Your task to perform on an android device: Search for seafood restaurants on Google Maps Image 0: 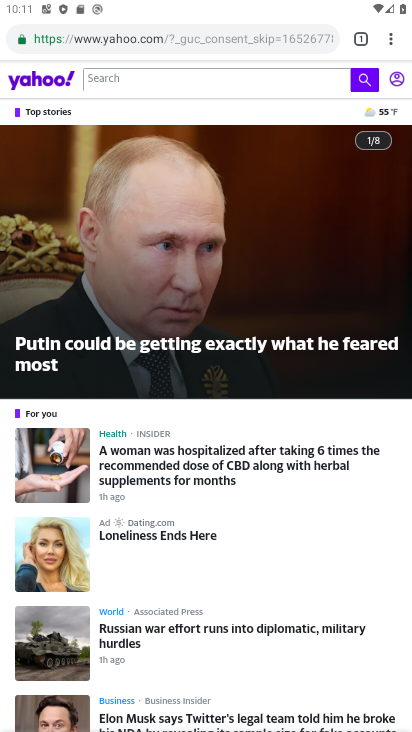
Step 0: press home button
Your task to perform on an android device: Search for seafood restaurants on Google Maps Image 1: 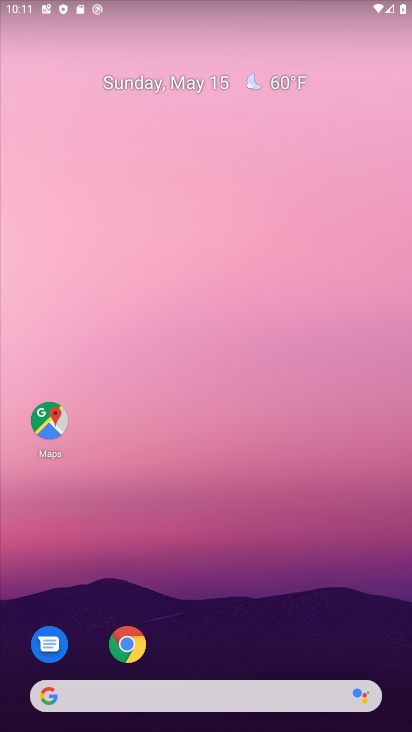
Step 1: click (51, 411)
Your task to perform on an android device: Search for seafood restaurants on Google Maps Image 2: 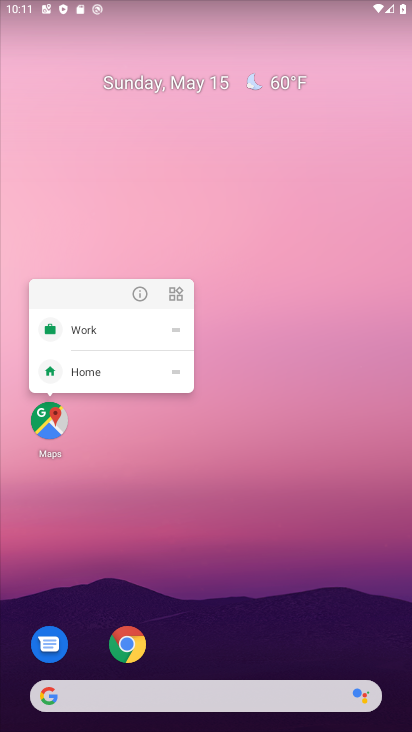
Step 2: click (51, 410)
Your task to perform on an android device: Search for seafood restaurants on Google Maps Image 3: 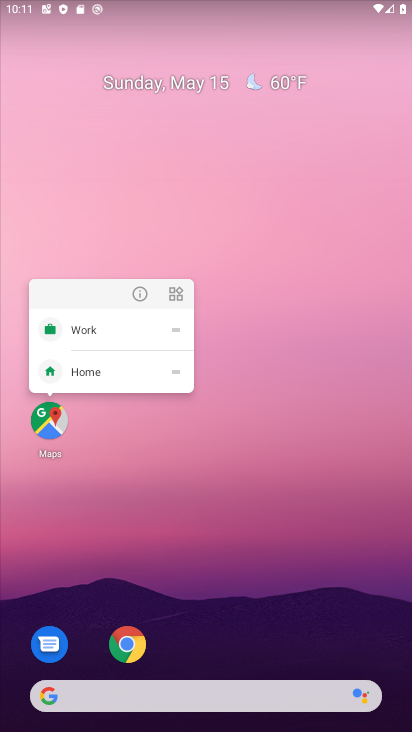
Step 3: click (51, 411)
Your task to perform on an android device: Search for seafood restaurants on Google Maps Image 4: 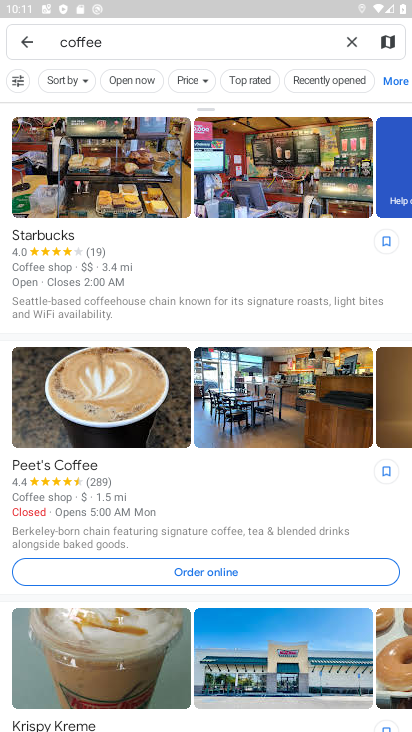
Step 4: click (140, 42)
Your task to perform on an android device: Search for seafood restaurants on Google Maps Image 5: 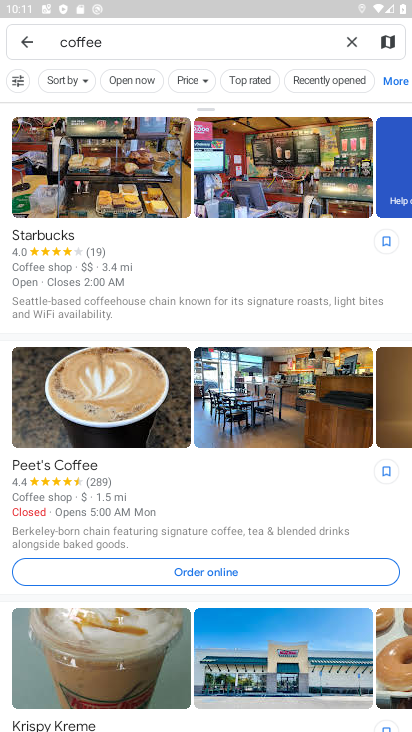
Step 5: click (349, 39)
Your task to perform on an android device: Search for seafood restaurants on Google Maps Image 6: 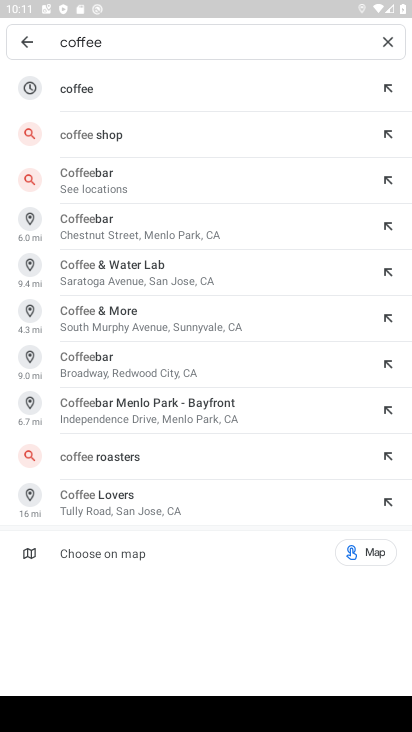
Step 6: click (121, 41)
Your task to perform on an android device: Search for seafood restaurants on Google Maps Image 7: 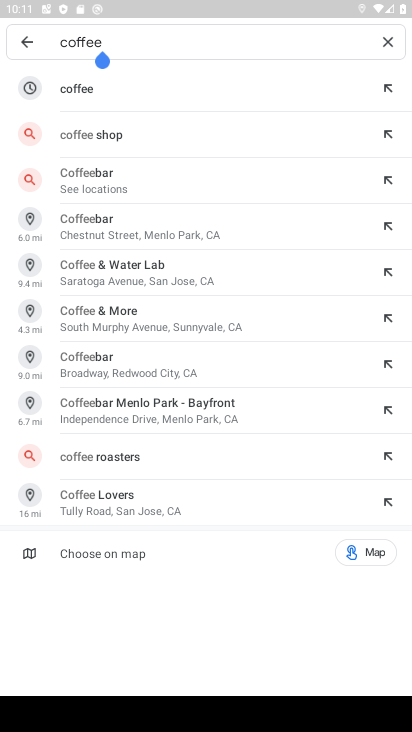
Step 7: click (391, 40)
Your task to perform on an android device: Search for seafood restaurants on Google Maps Image 8: 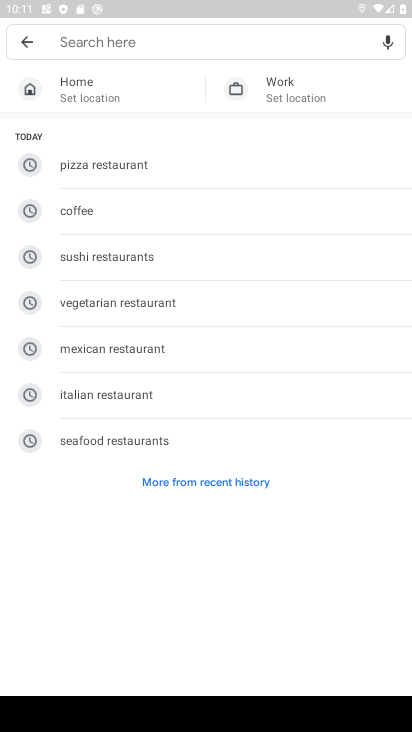
Step 8: click (166, 440)
Your task to perform on an android device: Search for seafood restaurants on Google Maps Image 9: 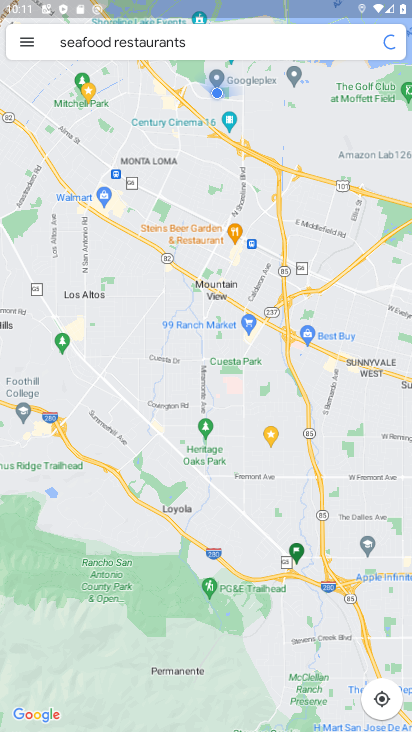
Step 9: task complete